Your task to perform on an android device: Show me popular games on the Play Store Image 0: 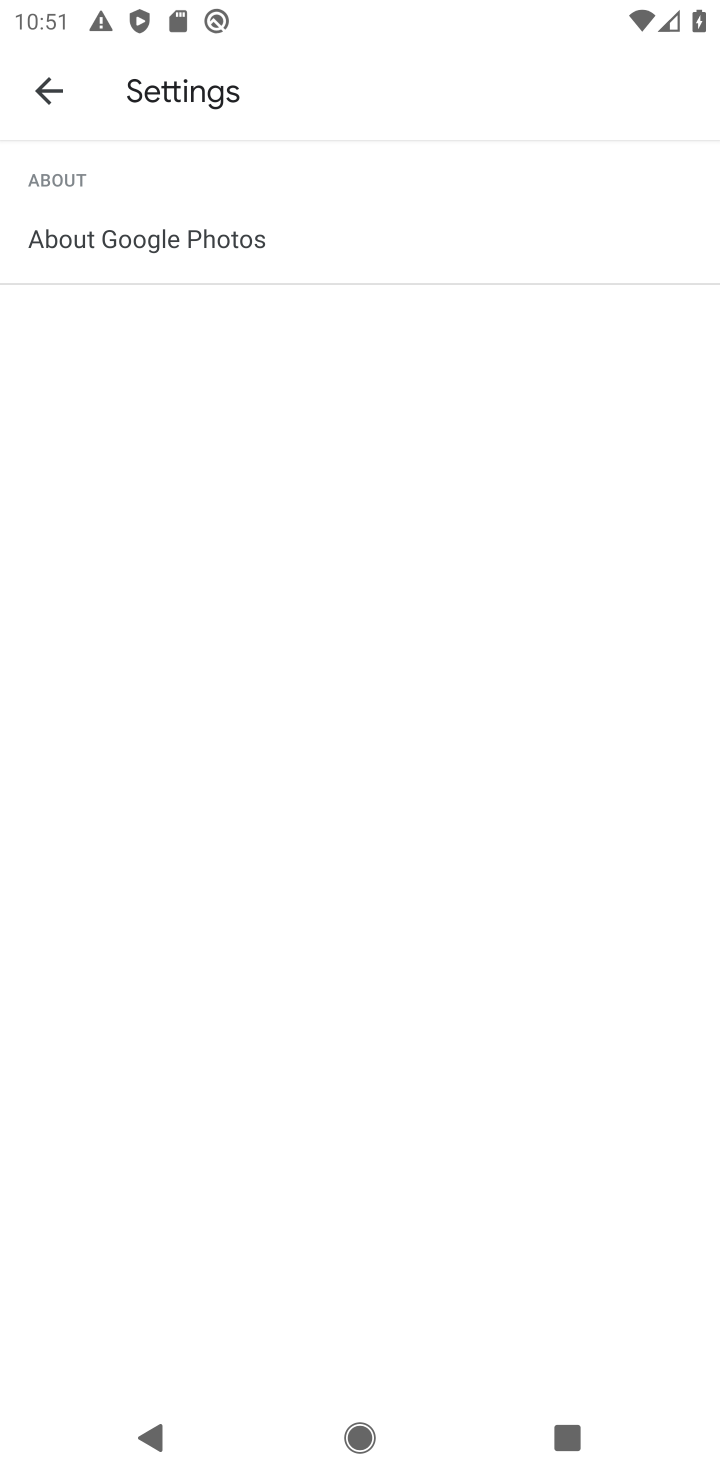
Step 0: press home button
Your task to perform on an android device: Show me popular games on the Play Store Image 1: 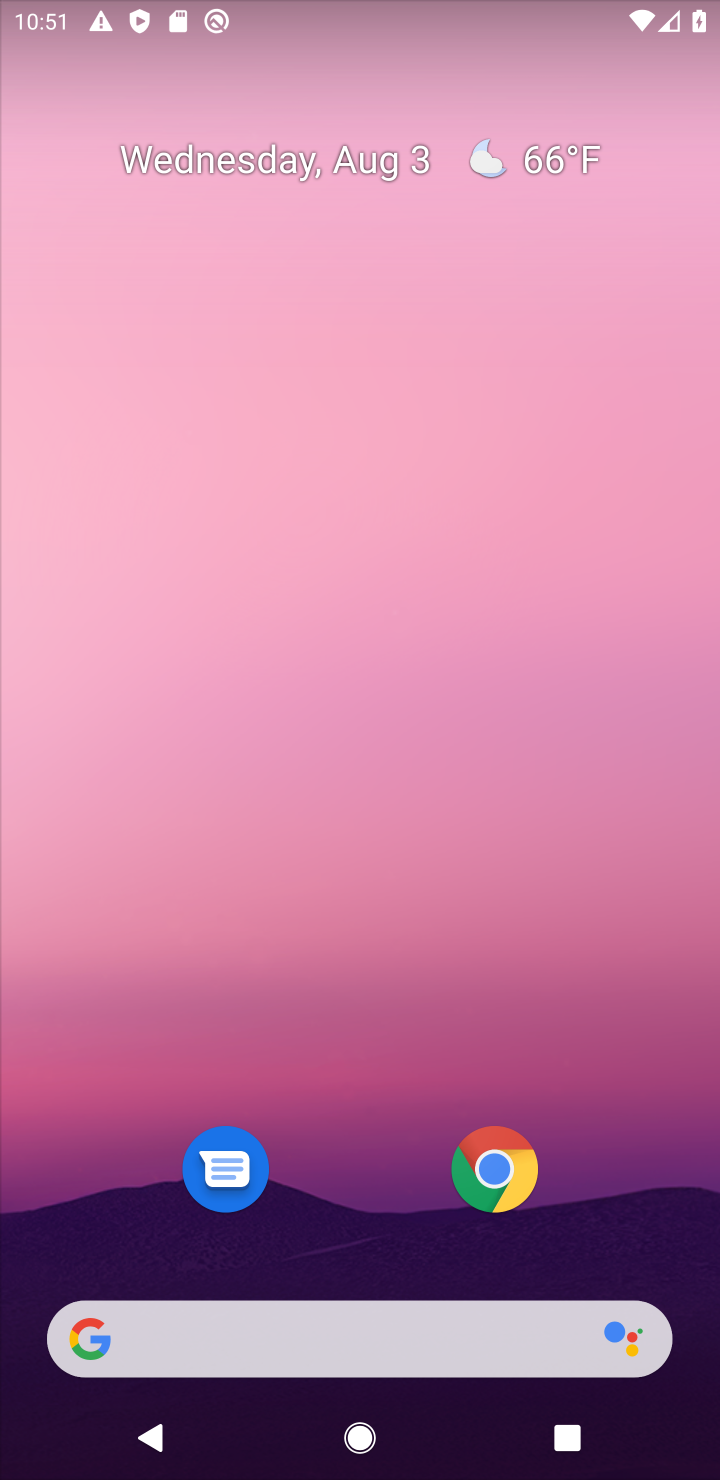
Step 1: drag from (361, 983) to (329, 69)
Your task to perform on an android device: Show me popular games on the Play Store Image 2: 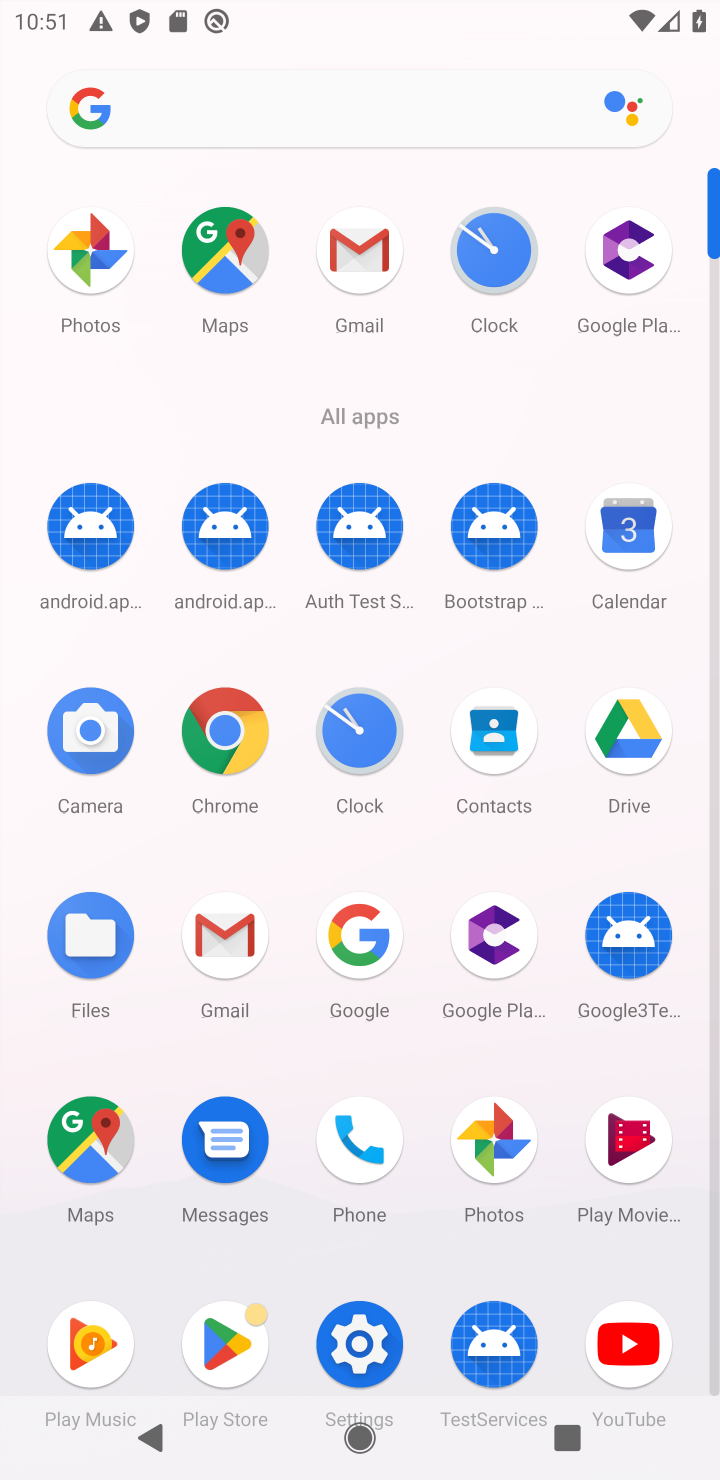
Step 2: click (218, 1350)
Your task to perform on an android device: Show me popular games on the Play Store Image 3: 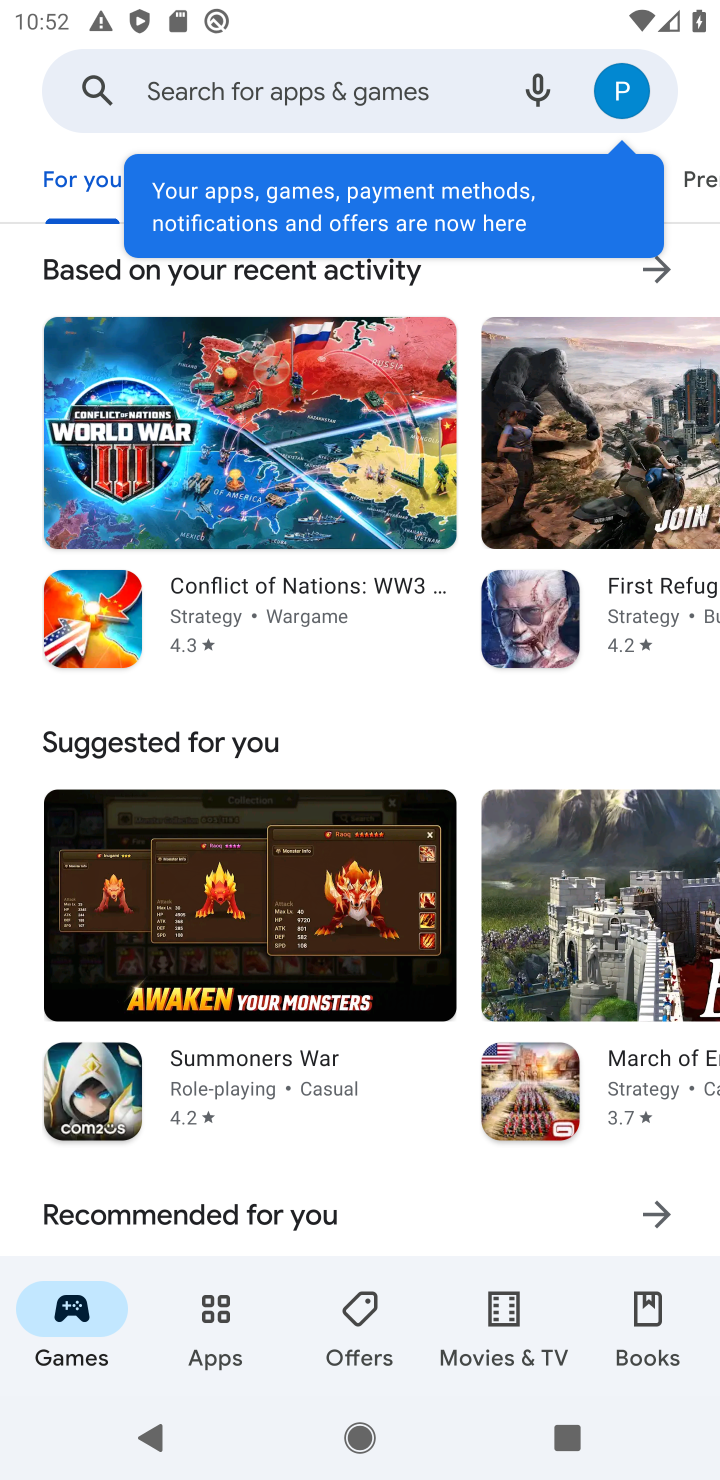
Step 3: click (73, 1335)
Your task to perform on an android device: Show me popular games on the Play Store Image 4: 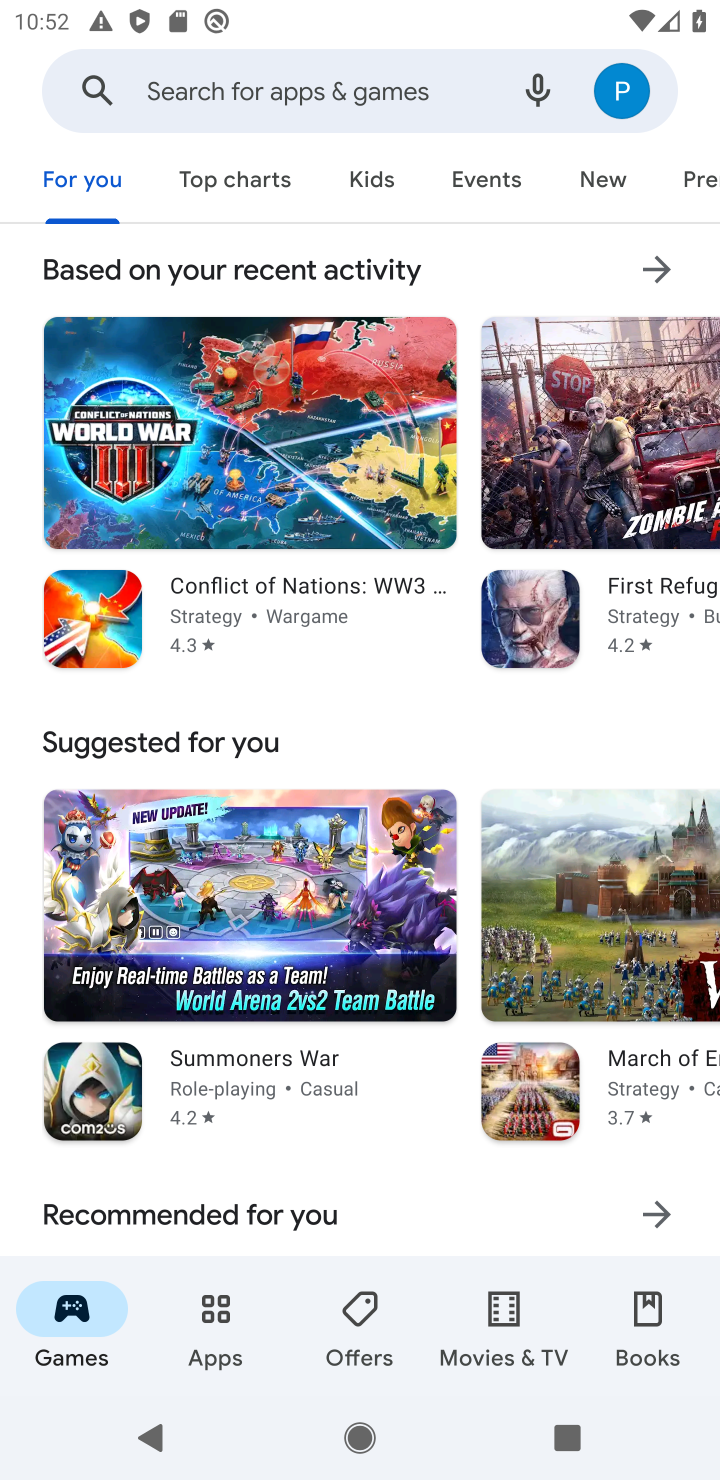
Step 4: drag from (387, 1069) to (379, 546)
Your task to perform on an android device: Show me popular games on the Play Store Image 5: 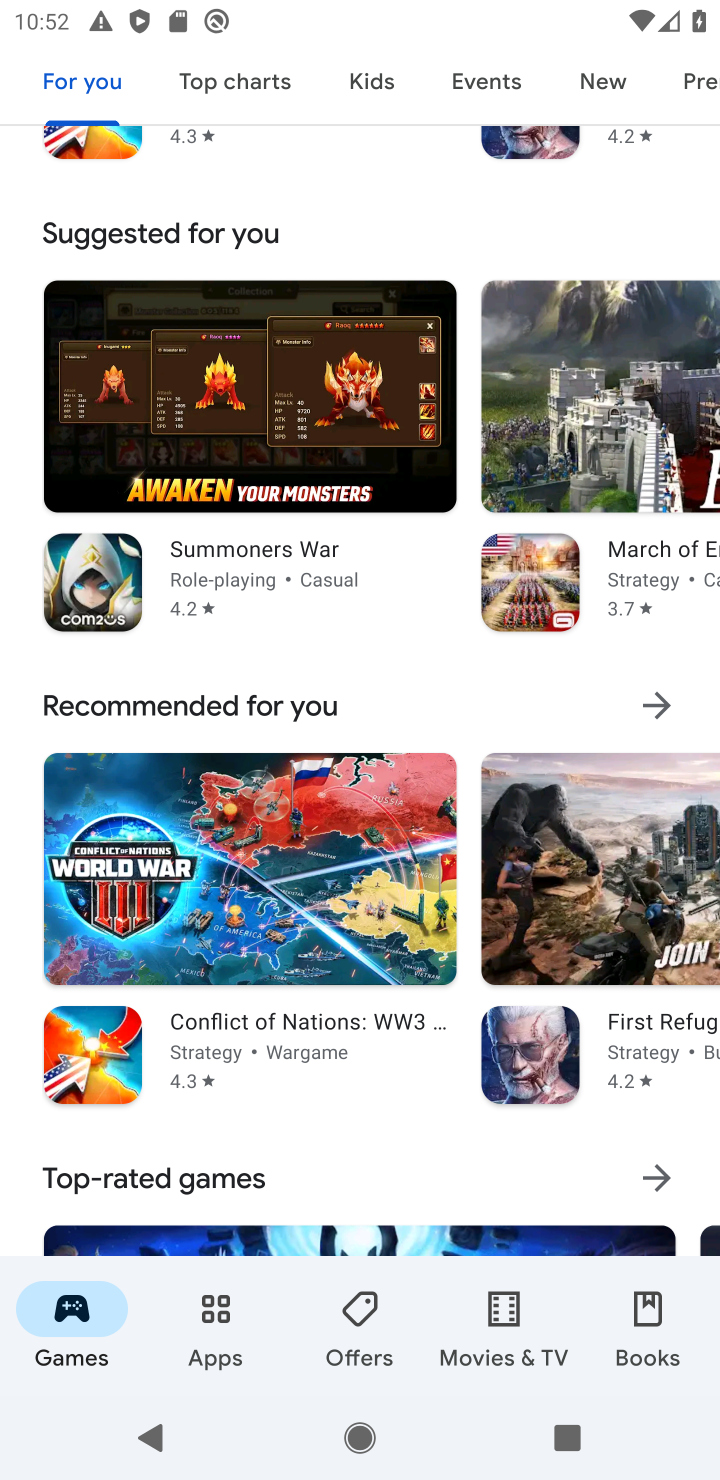
Step 5: drag from (300, 1131) to (307, 380)
Your task to perform on an android device: Show me popular games on the Play Store Image 6: 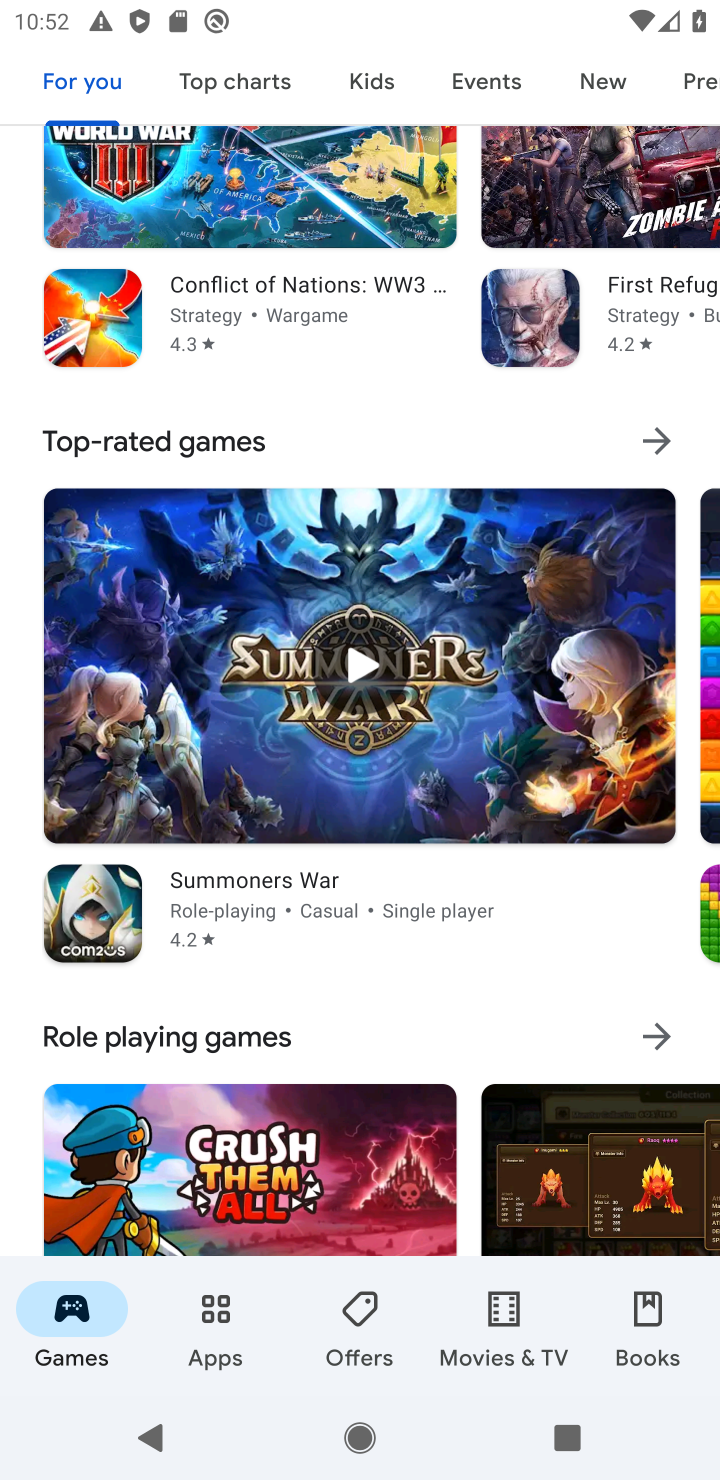
Step 6: drag from (305, 702) to (288, 324)
Your task to perform on an android device: Show me popular games on the Play Store Image 7: 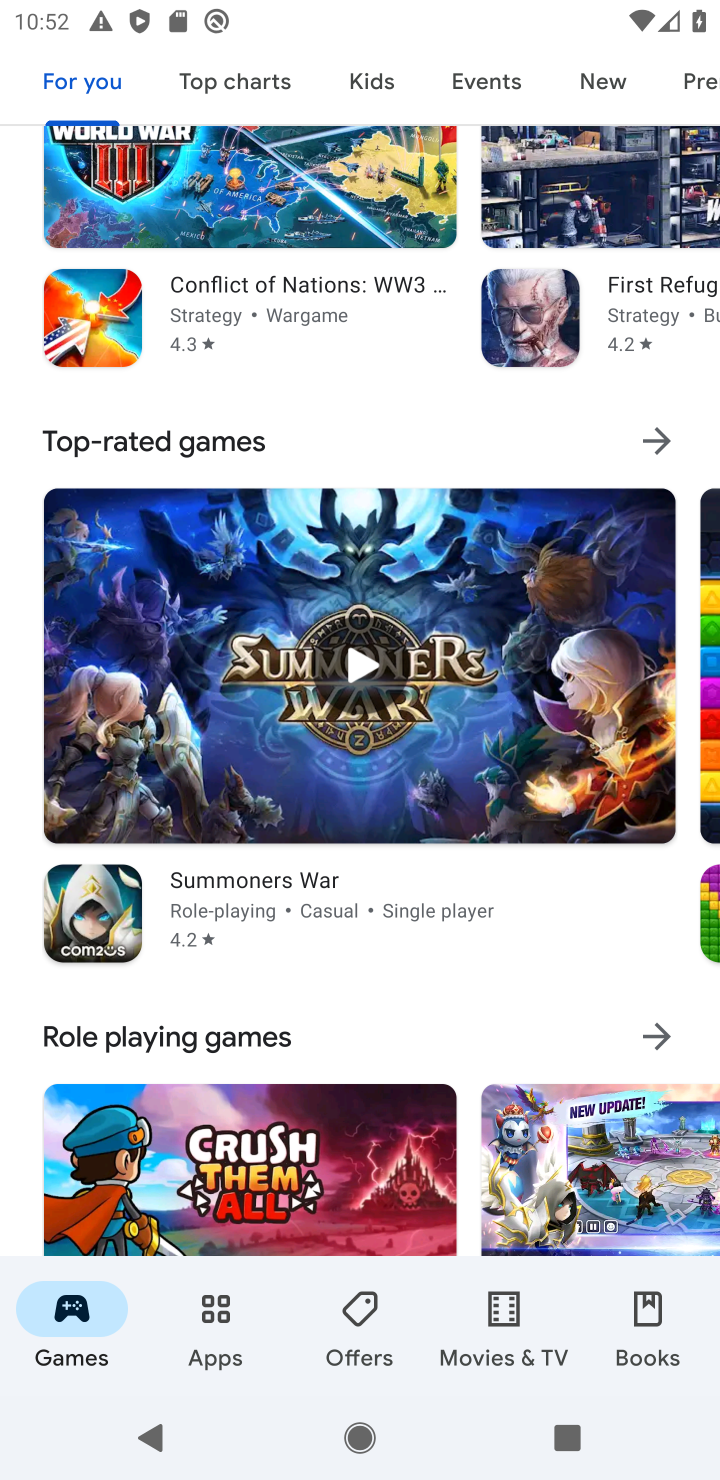
Step 7: drag from (334, 820) to (303, 374)
Your task to perform on an android device: Show me popular games on the Play Store Image 8: 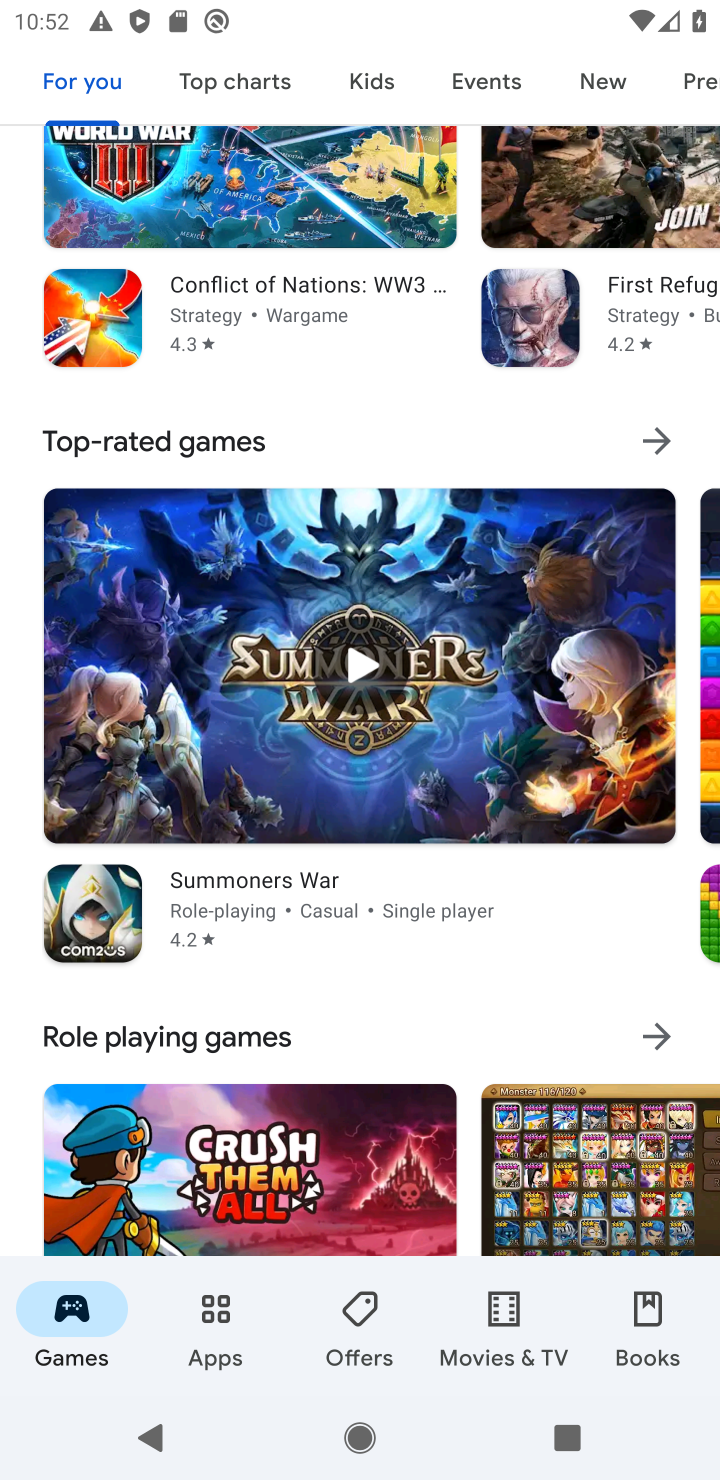
Step 8: drag from (439, 1026) to (431, 390)
Your task to perform on an android device: Show me popular games on the Play Store Image 9: 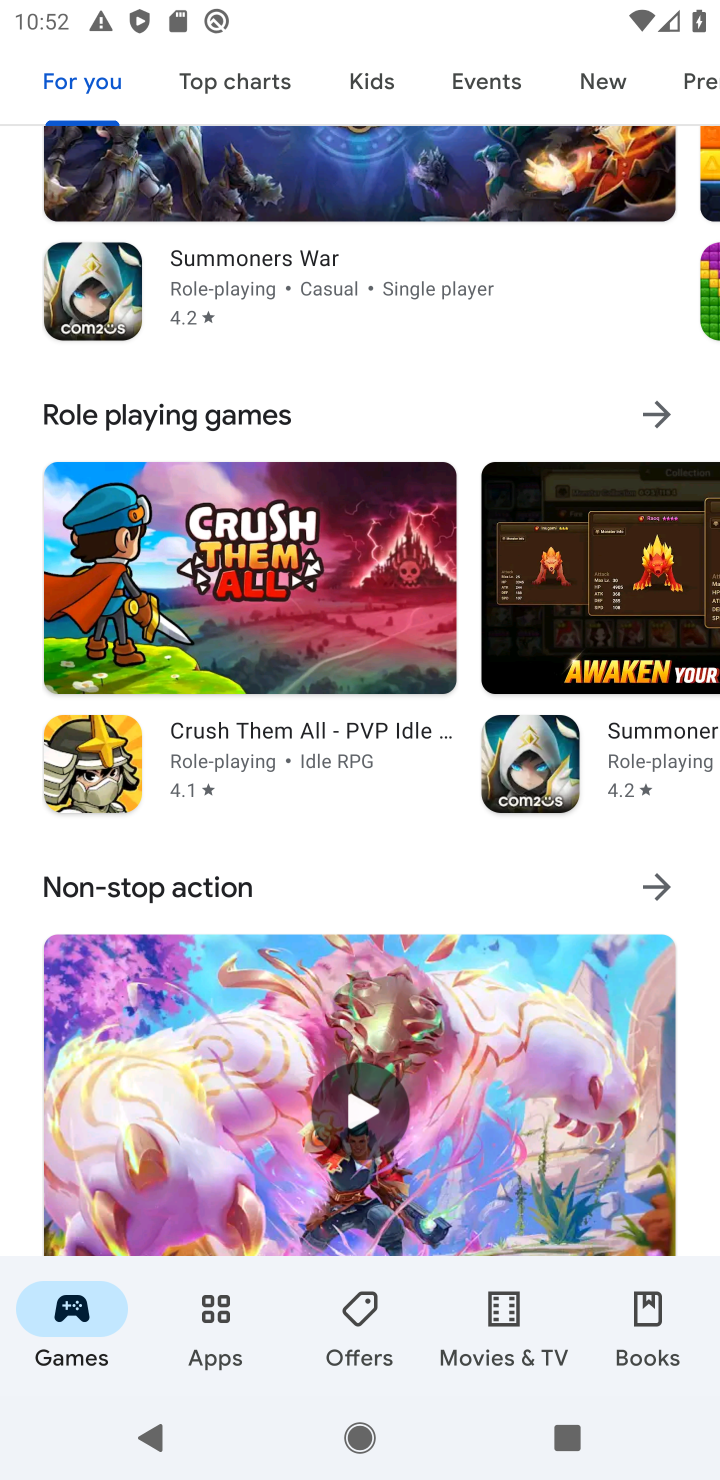
Step 9: drag from (245, 881) to (255, 445)
Your task to perform on an android device: Show me popular games on the Play Store Image 10: 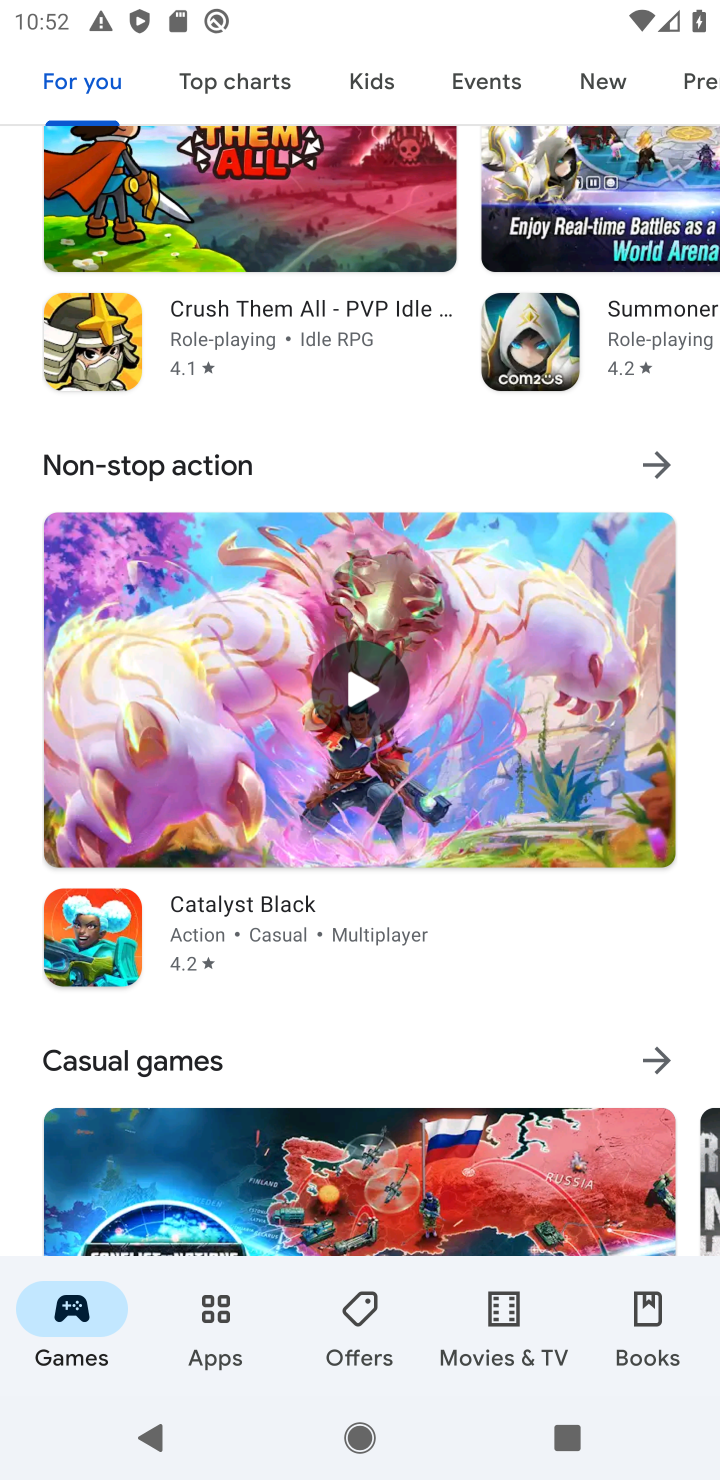
Step 10: drag from (420, 1114) to (382, 371)
Your task to perform on an android device: Show me popular games on the Play Store Image 11: 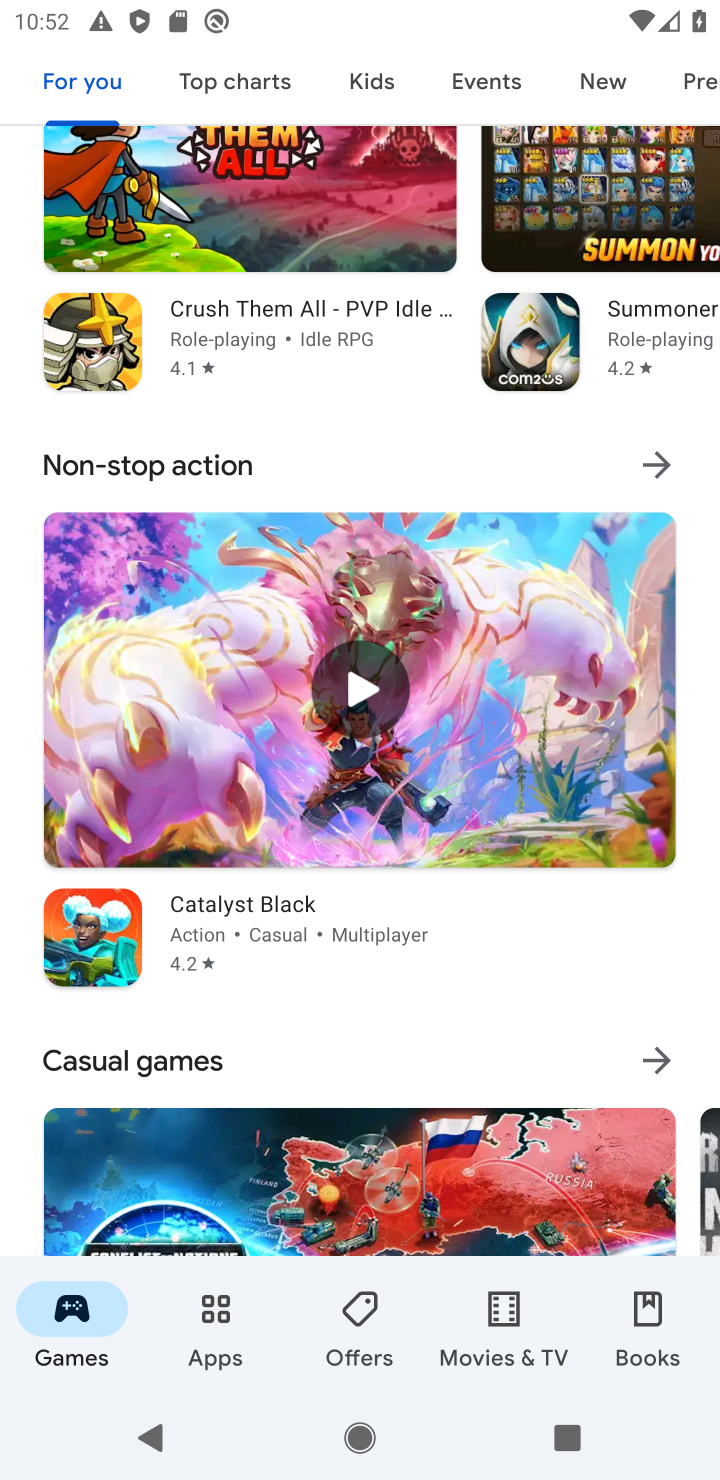
Step 11: drag from (230, 1152) to (208, 345)
Your task to perform on an android device: Show me popular games on the Play Store Image 12: 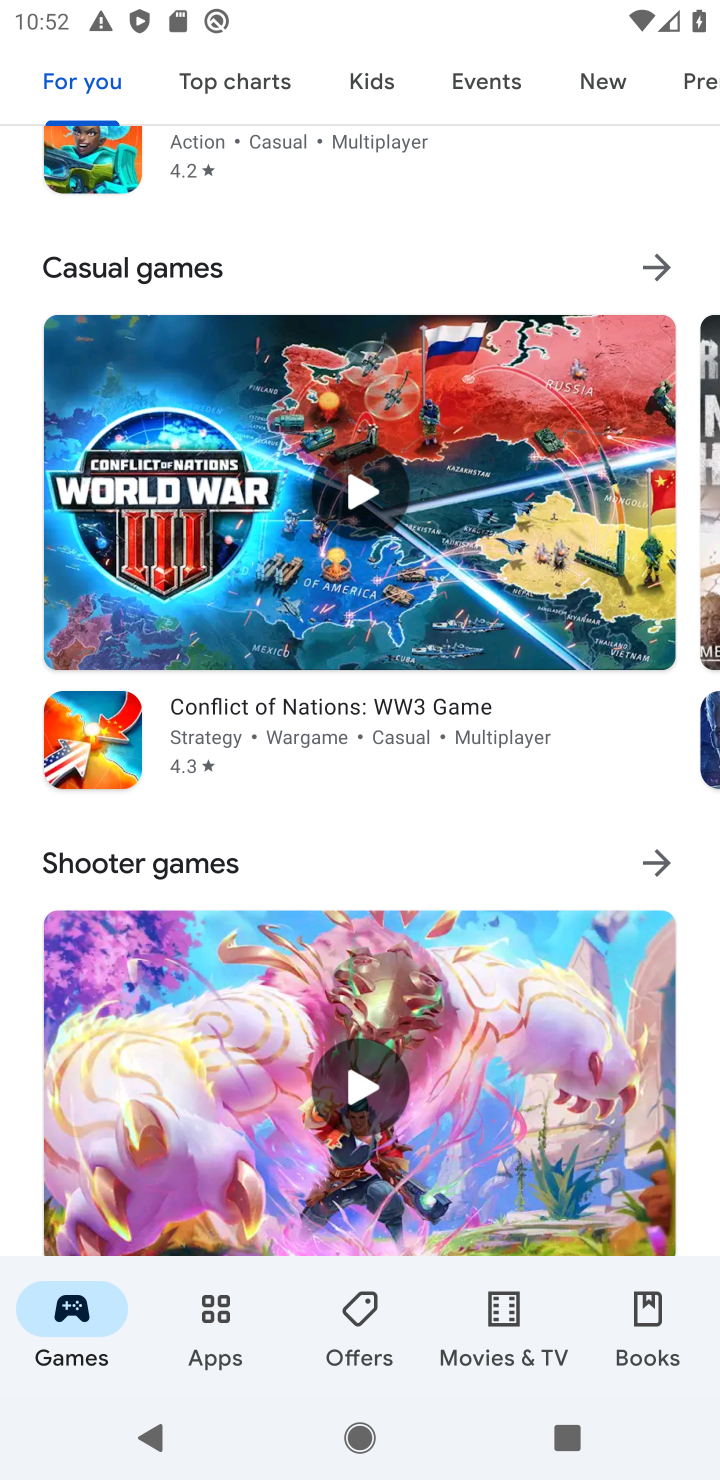
Step 12: drag from (241, 1059) to (204, 220)
Your task to perform on an android device: Show me popular games on the Play Store Image 13: 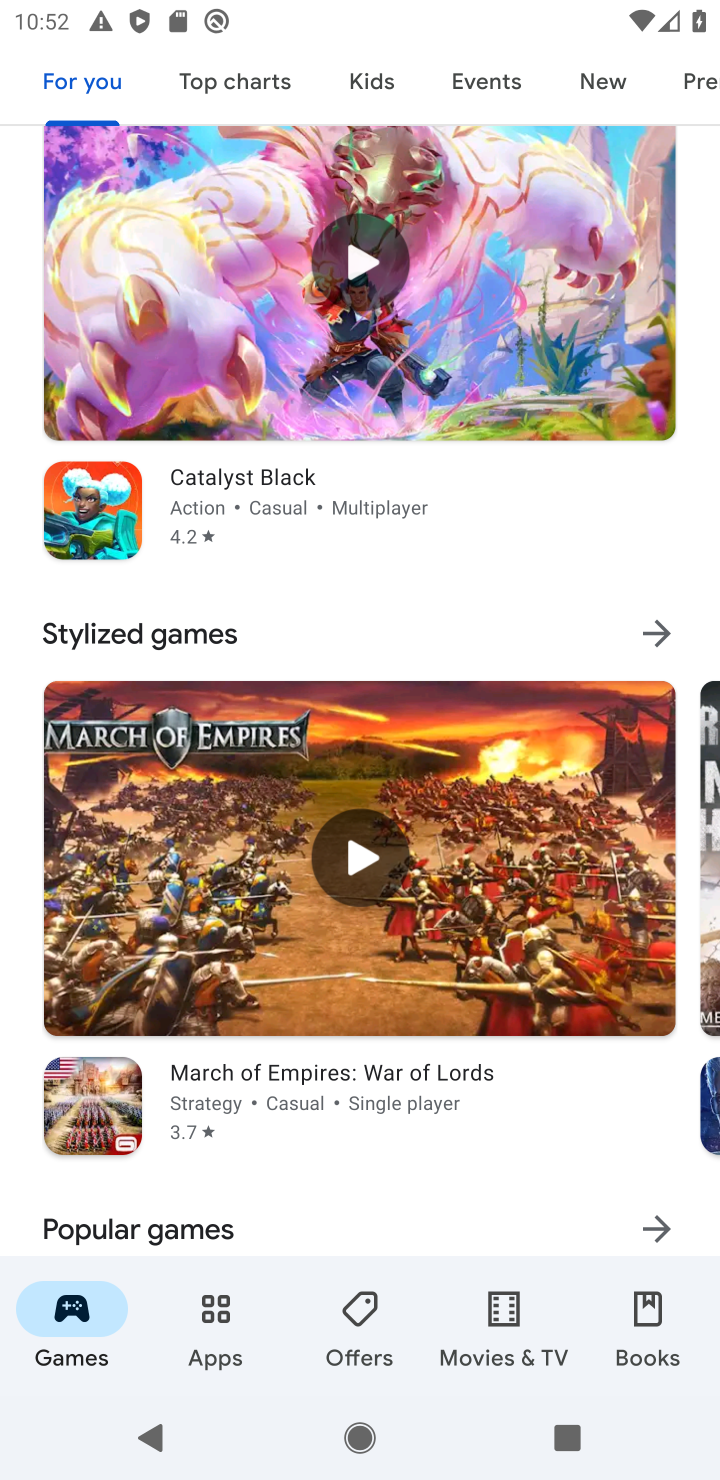
Step 13: drag from (500, 862) to (465, 318)
Your task to perform on an android device: Show me popular games on the Play Store Image 14: 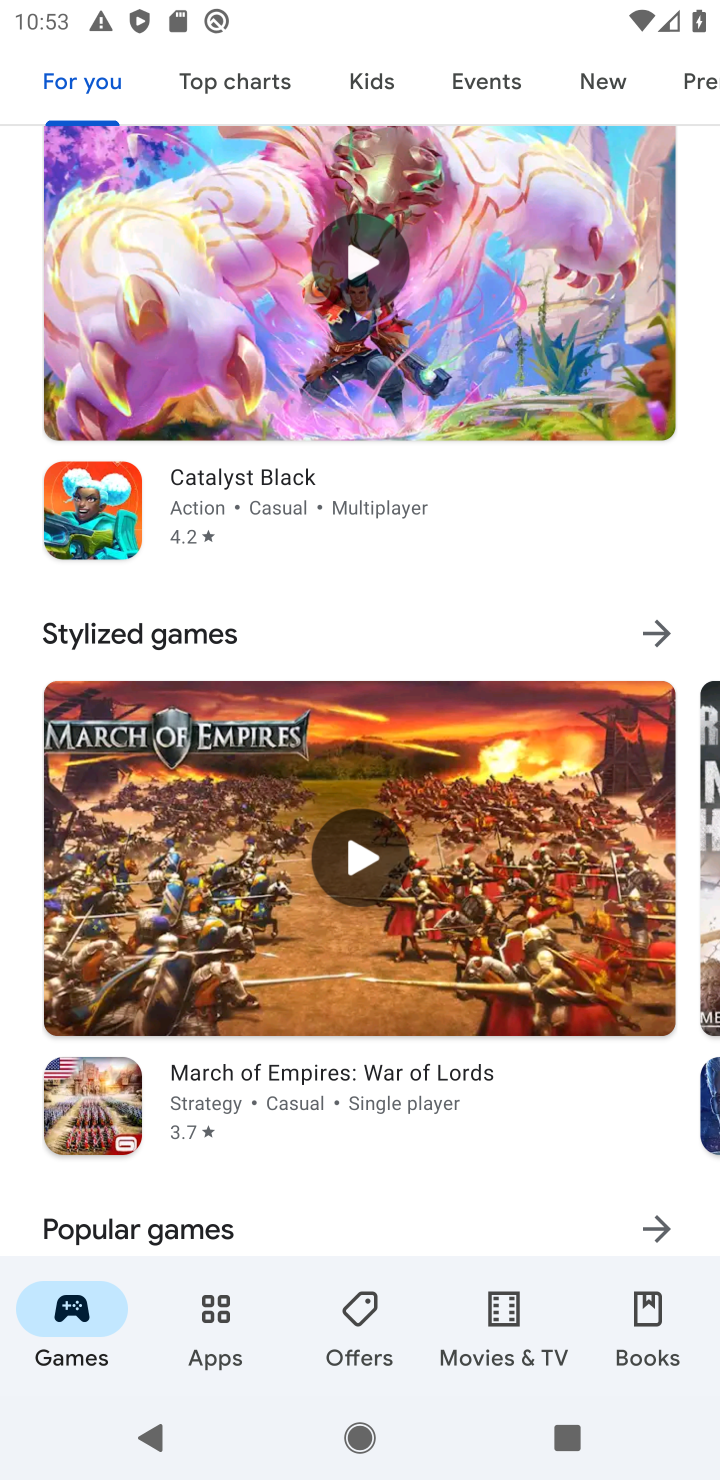
Step 14: drag from (381, 1036) to (407, 247)
Your task to perform on an android device: Show me popular games on the Play Store Image 15: 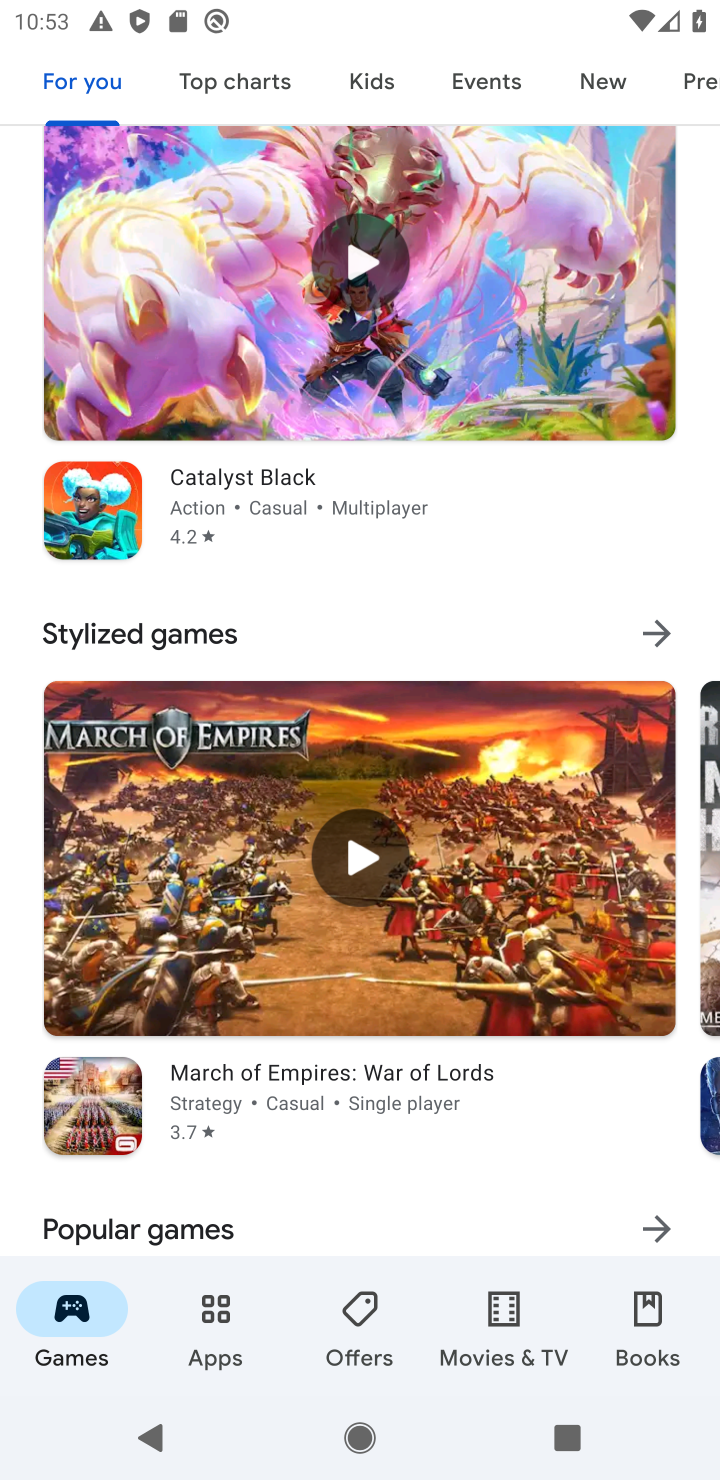
Step 15: click (204, 1234)
Your task to perform on an android device: Show me popular games on the Play Store Image 16: 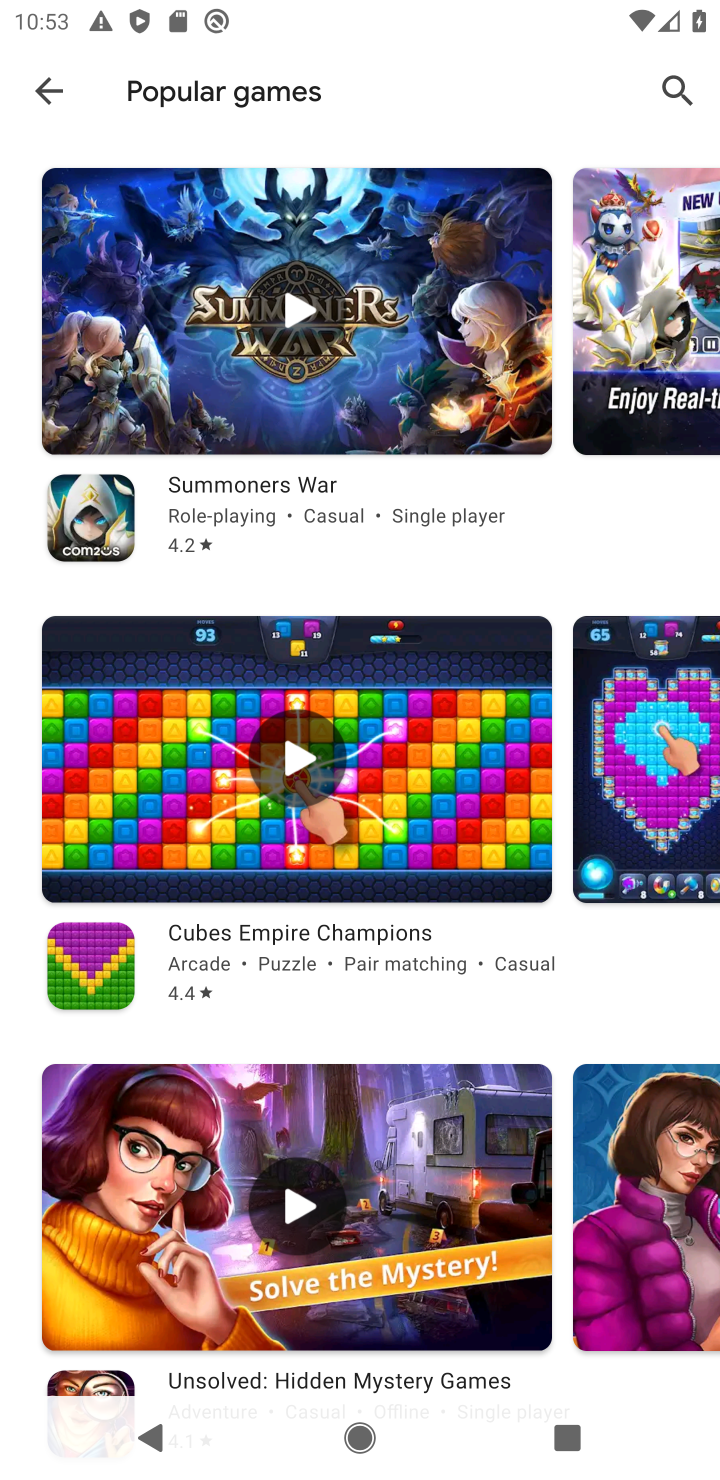
Step 16: task complete